Your task to perform on an android device: Turn on the flashlight Image 0: 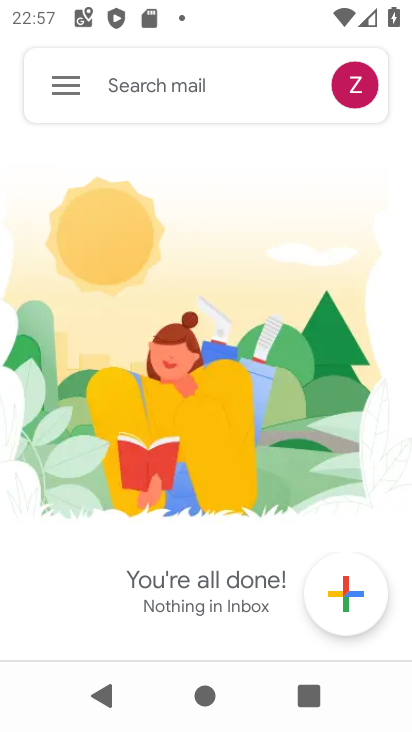
Step 0: press home button
Your task to perform on an android device: Turn on the flashlight Image 1: 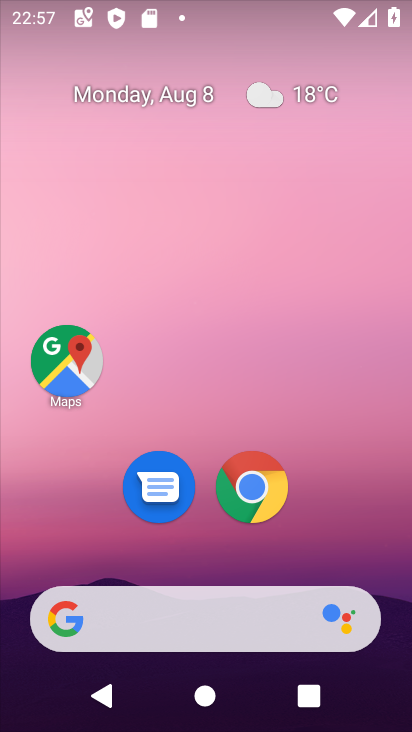
Step 1: drag from (203, 542) to (192, 123)
Your task to perform on an android device: Turn on the flashlight Image 2: 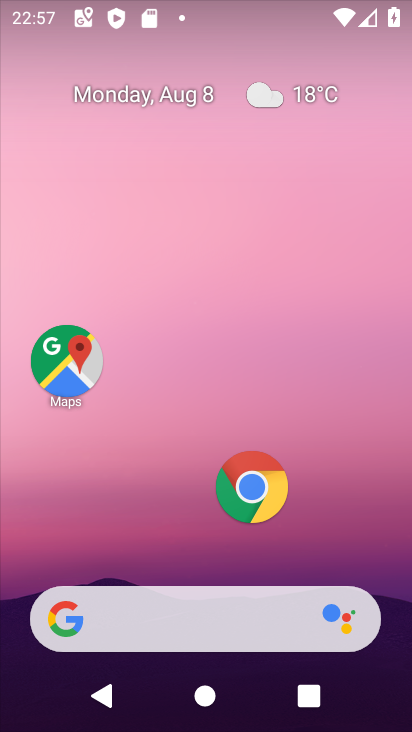
Step 2: drag from (210, 573) to (243, 167)
Your task to perform on an android device: Turn on the flashlight Image 3: 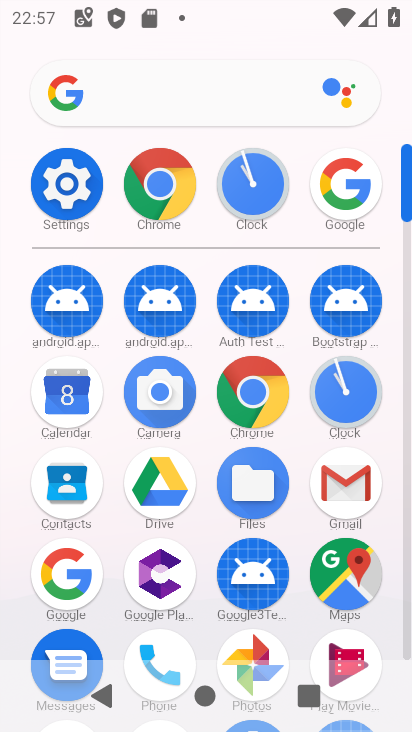
Step 3: click (71, 181)
Your task to perform on an android device: Turn on the flashlight Image 4: 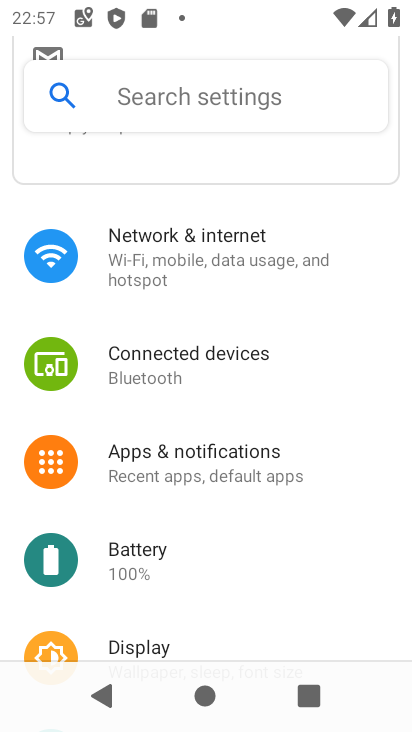
Step 4: task complete